Your task to perform on an android device: open chrome and create a bookmark for the current page Image 0: 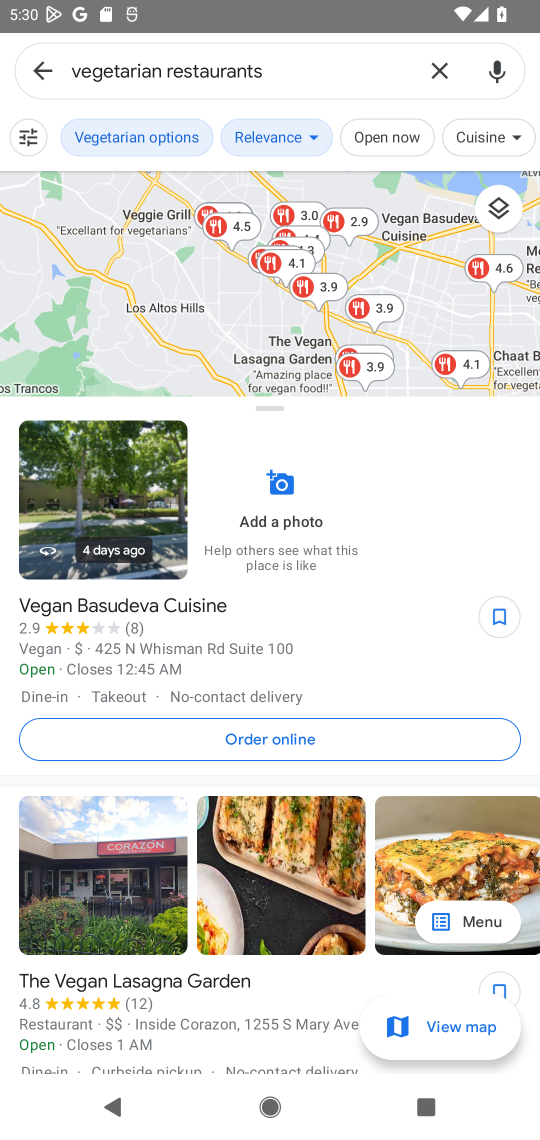
Step 0: press home button
Your task to perform on an android device: open chrome and create a bookmark for the current page Image 1: 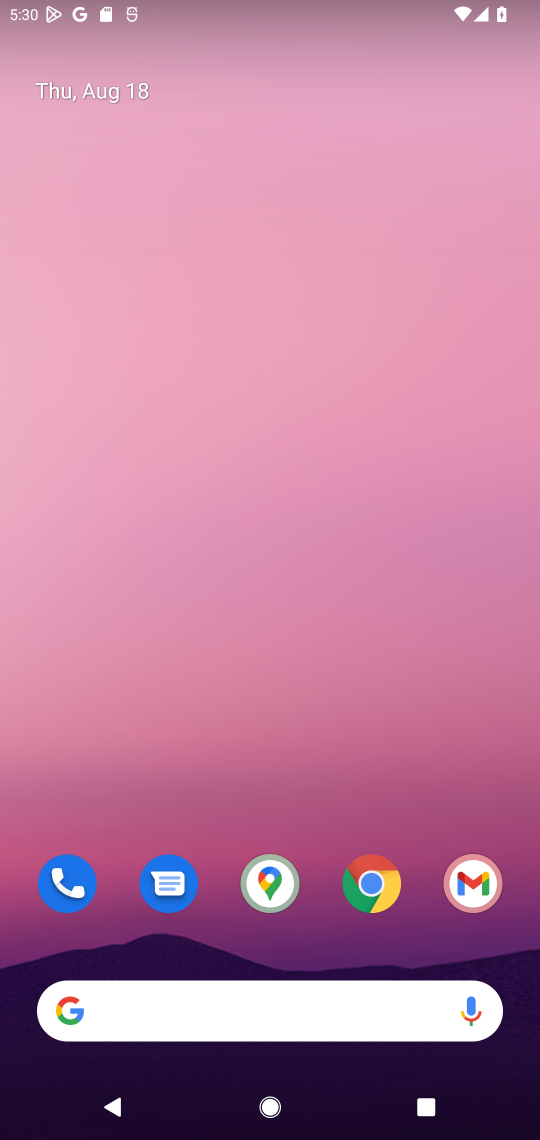
Step 1: drag from (311, 926) to (337, 38)
Your task to perform on an android device: open chrome and create a bookmark for the current page Image 2: 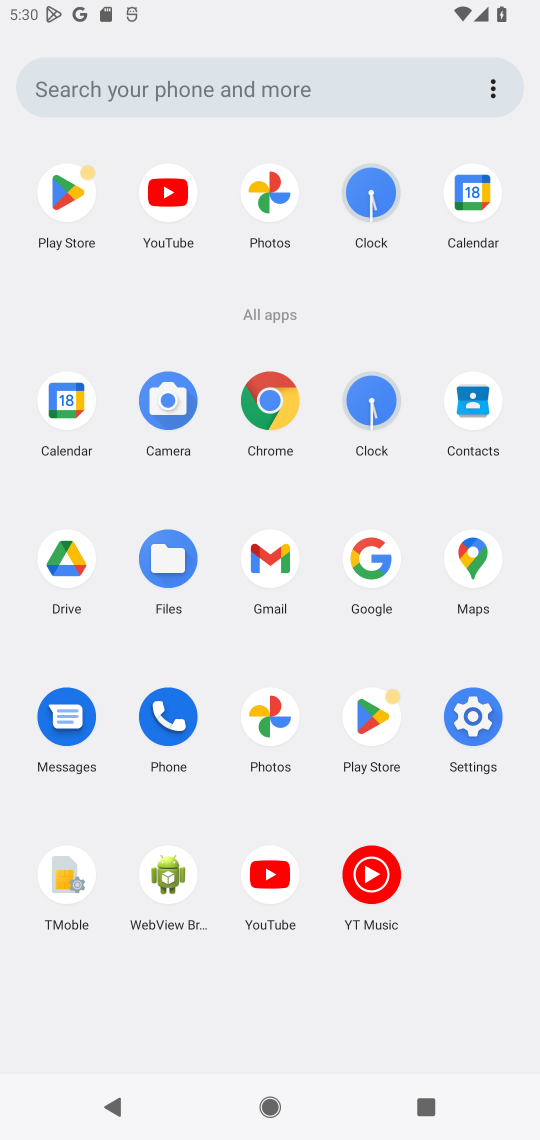
Step 2: click (278, 401)
Your task to perform on an android device: open chrome and create a bookmark for the current page Image 3: 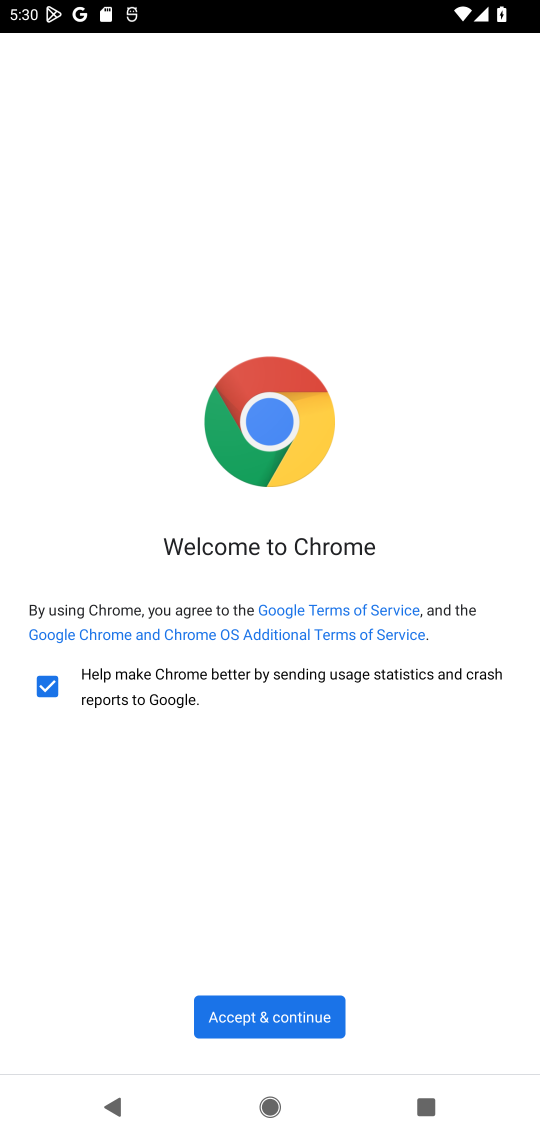
Step 3: click (278, 1013)
Your task to perform on an android device: open chrome and create a bookmark for the current page Image 4: 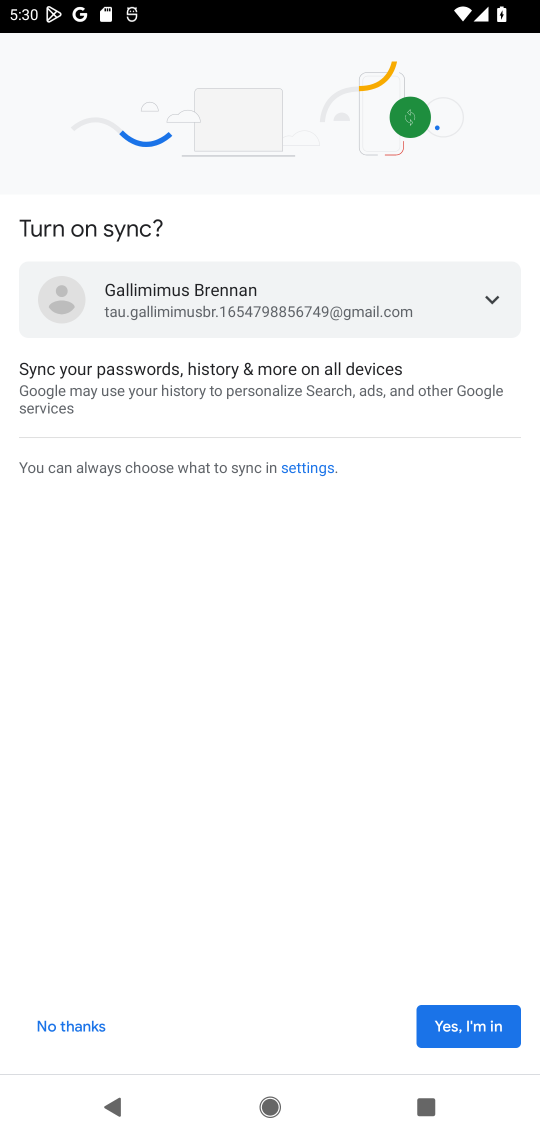
Step 4: click (467, 1019)
Your task to perform on an android device: open chrome and create a bookmark for the current page Image 5: 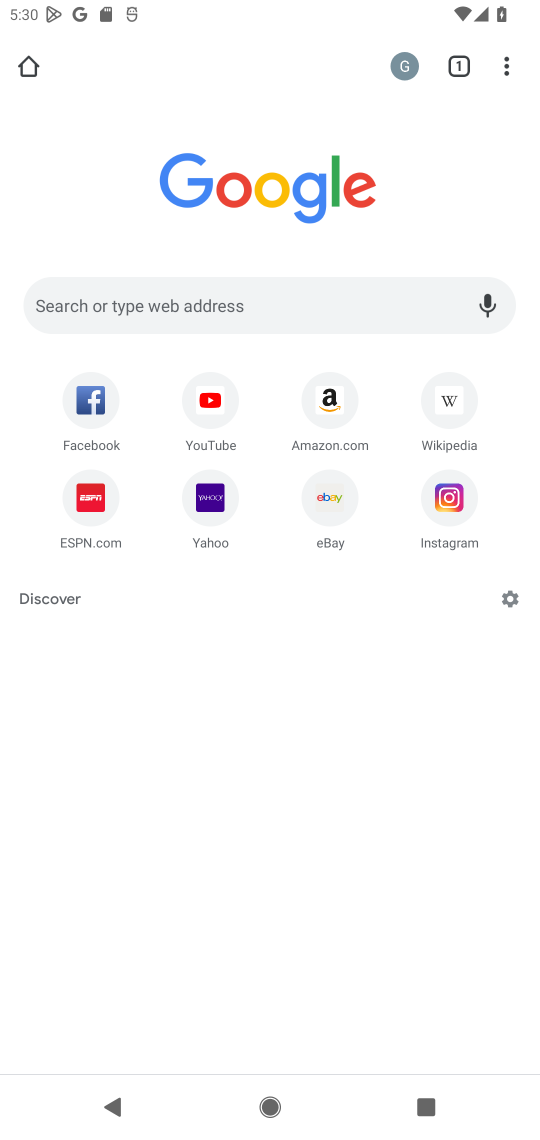
Step 5: task complete